Your task to perform on an android device: Do I have any events tomorrow? Image 0: 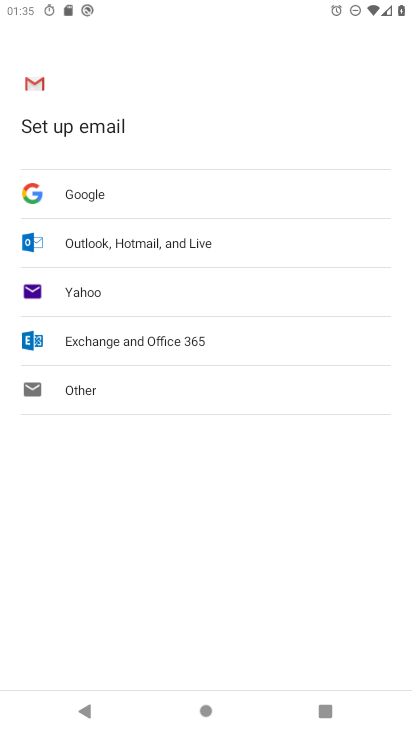
Step 0: press home button
Your task to perform on an android device: Do I have any events tomorrow? Image 1: 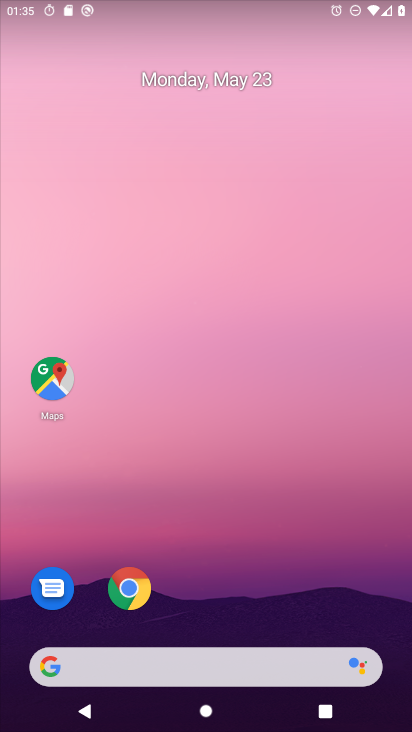
Step 1: drag from (238, 684) to (309, 136)
Your task to perform on an android device: Do I have any events tomorrow? Image 2: 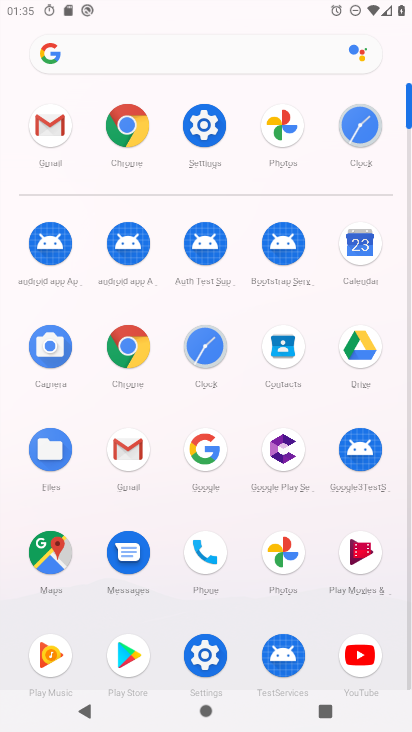
Step 2: click (354, 256)
Your task to perform on an android device: Do I have any events tomorrow? Image 3: 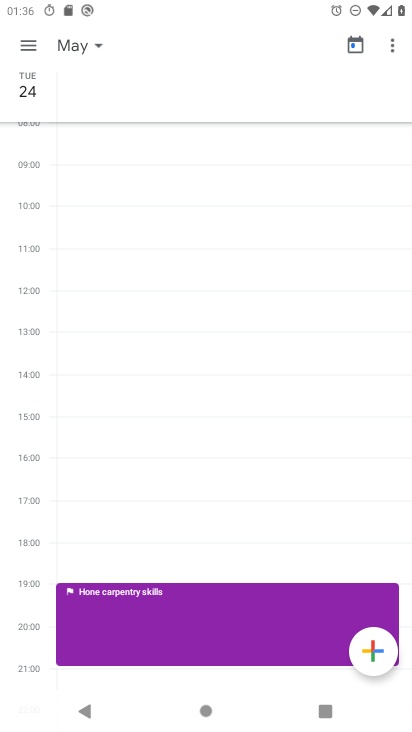
Step 3: click (16, 43)
Your task to perform on an android device: Do I have any events tomorrow? Image 4: 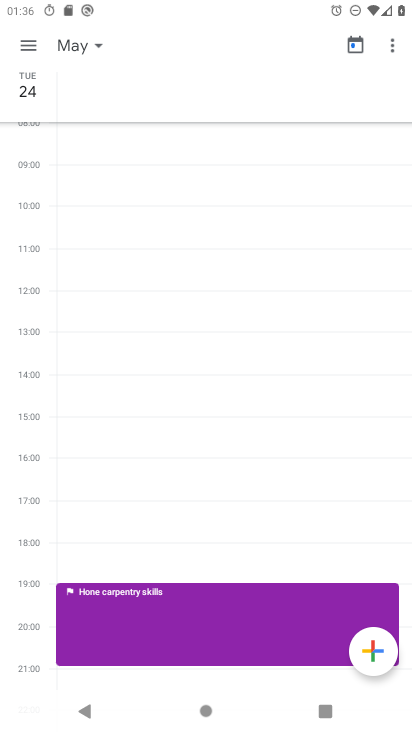
Step 4: click (31, 59)
Your task to perform on an android device: Do I have any events tomorrow? Image 5: 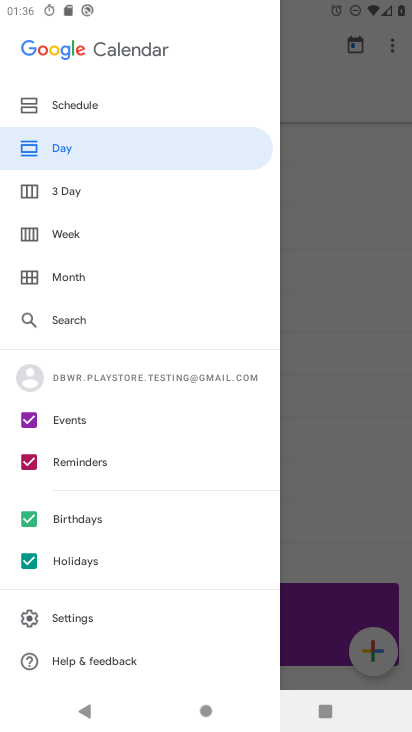
Step 5: click (59, 101)
Your task to perform on an android device: Do I have any events tomorrow? Image 6: 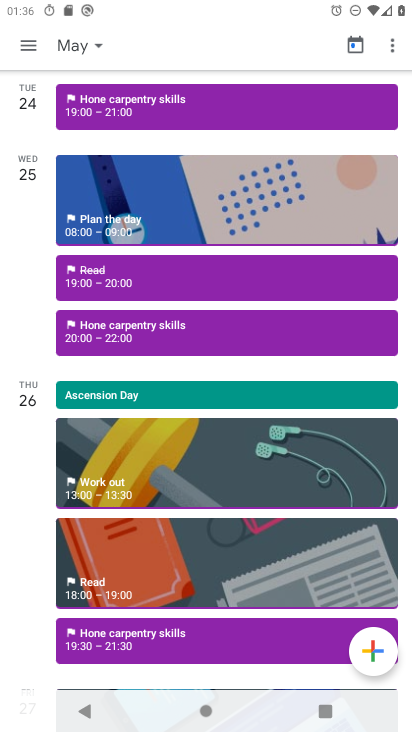
Step 6: task complete